Your task to perform on an android device: open the mobile data screen to see how much data has been used Image 0: 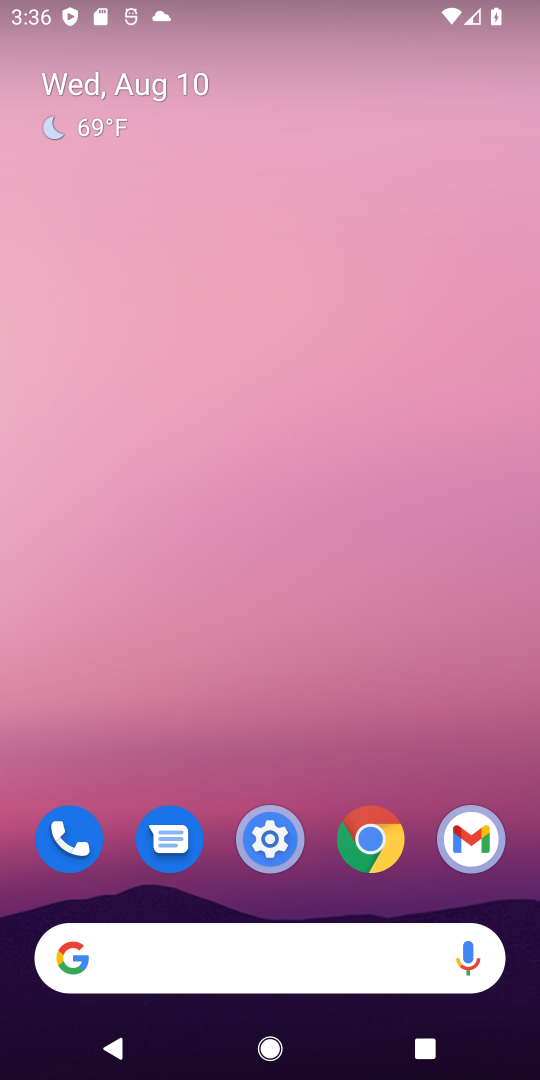
Step 0: click (274, 826)
Your task to perform on an android device: open the mobile data screen to see how much data has been used Image 1: 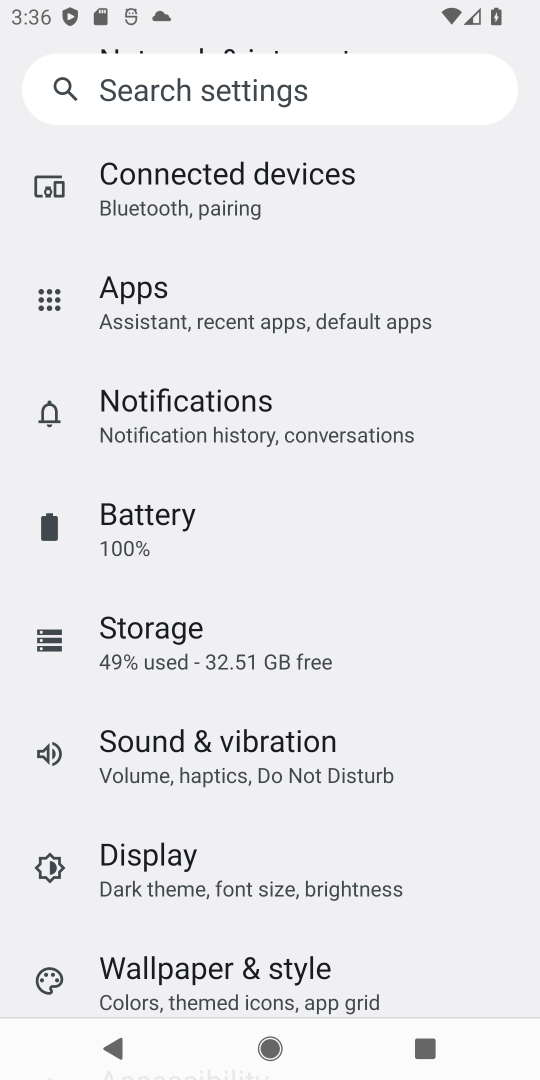
Step 1: drag from (329, 275) to (278, 838)
Your task to perform on an android device: open the mobile data screen to see how much data has been used Image 2: 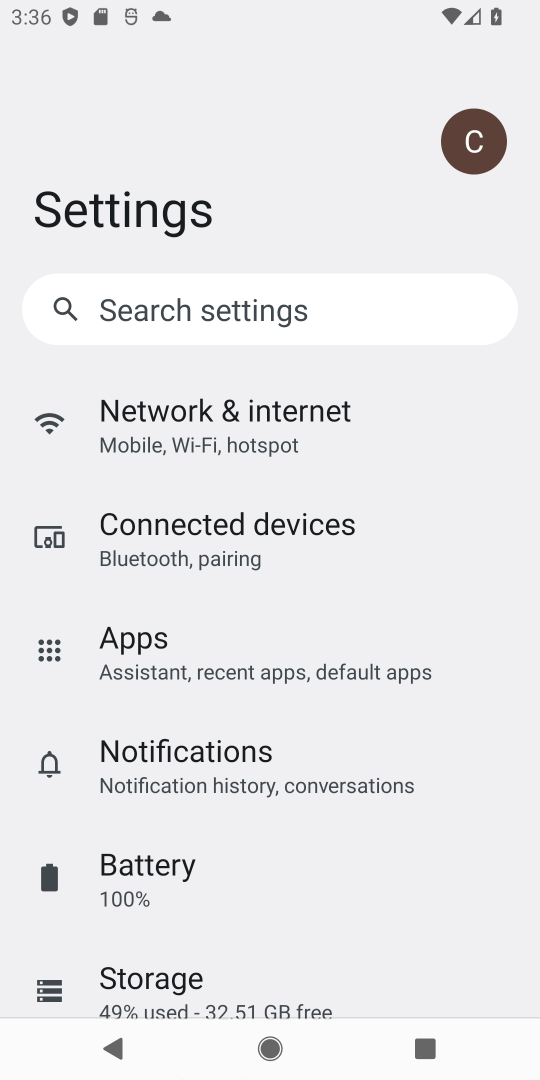
Step 2: click (283, 425)
Your task to perform on an android device: open the mobile data screen to see how much data has been used Image 3: 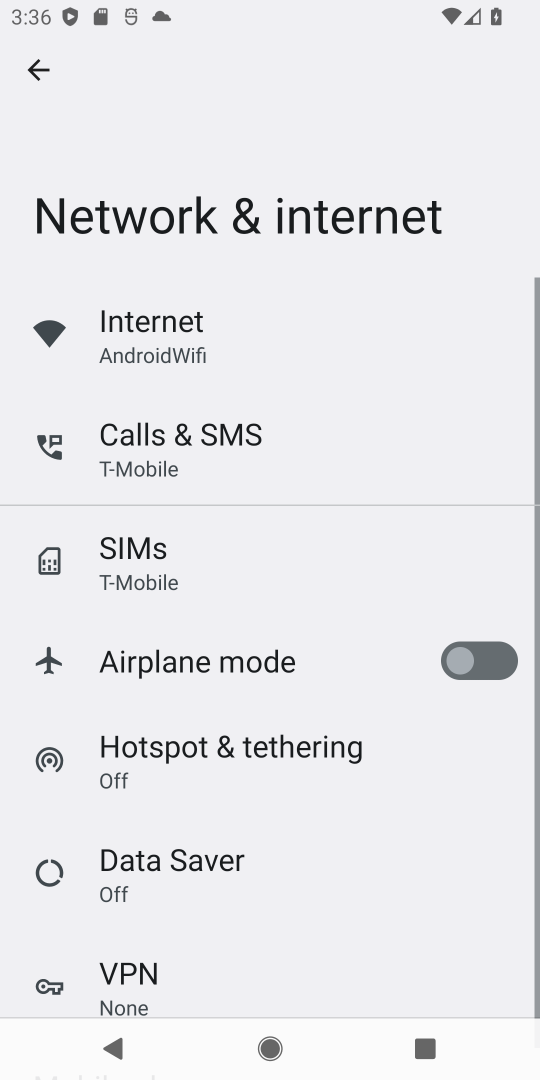
Step 3: click (137, 558)
Your task to perform on an android device: open the mobile data screen to see how much data has been used Image 4: 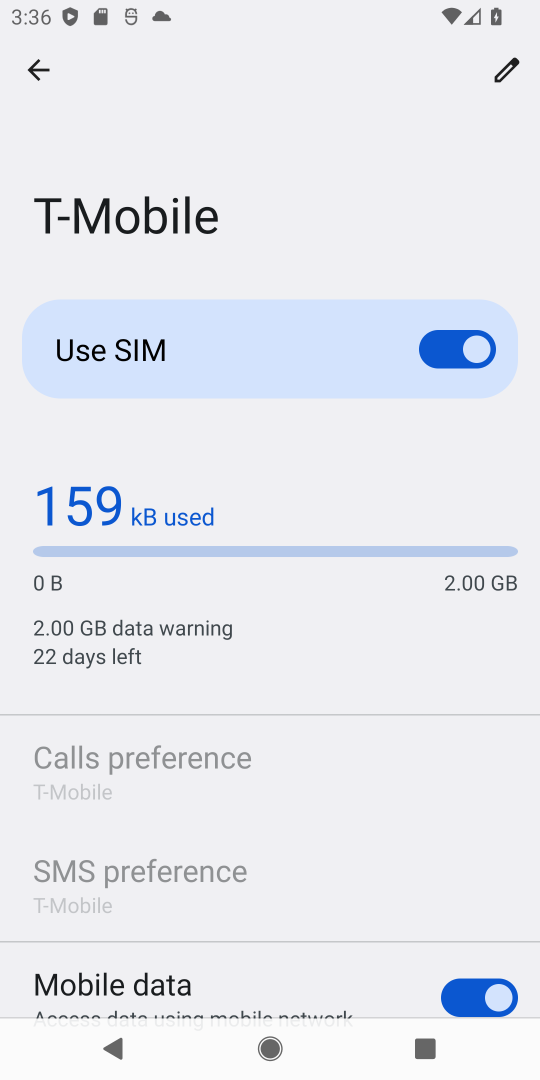
Step 4: task complete